Your task to perform on an android device: Go to Yahoo.com Image 0: 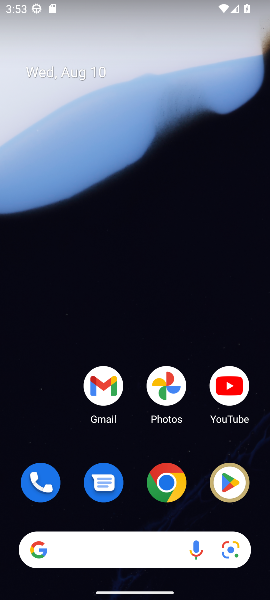
Step 0: click (131, 549)
Your task to perform on an android device: Go to Yahoo.com Image 1: 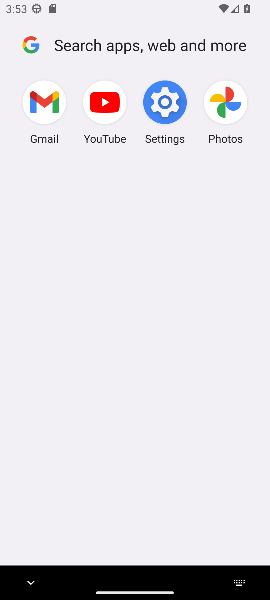
Step 1: type "yahoo.com"
Your task to perform on an android device: Go to Yahoo.com Image 2: 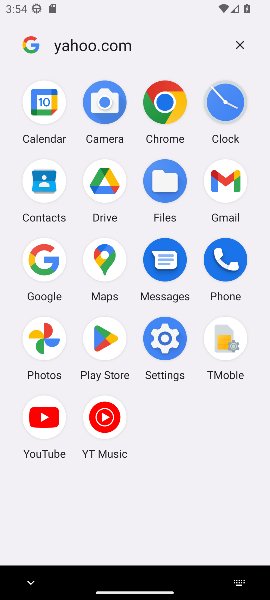
Step 2: click (239, 44)
Your task to perform on an android device: Go to Yahoo.com Image 3: 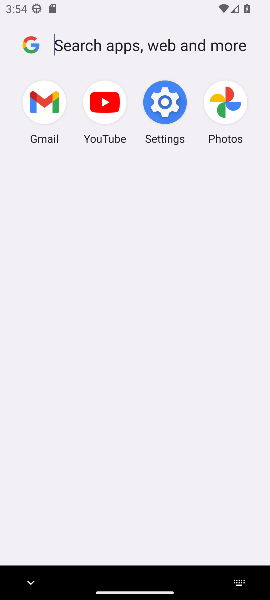
Step 3: press home button
Your task to perform on an android device: Go to Yahoo.com Image 4: 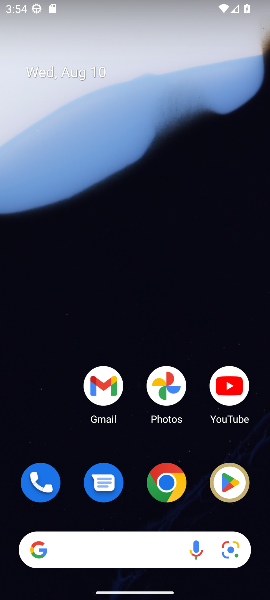
Step 4: click (128, 553)
Your task to perform on an android device: Go to Yahoo.com Image 5: 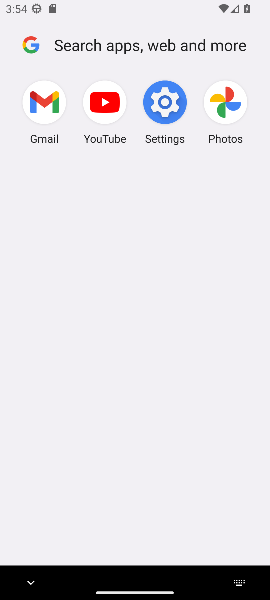
Step 5: click (30, 45)
Your task to perform on an android device: Go to Yahoo.com Image 6: 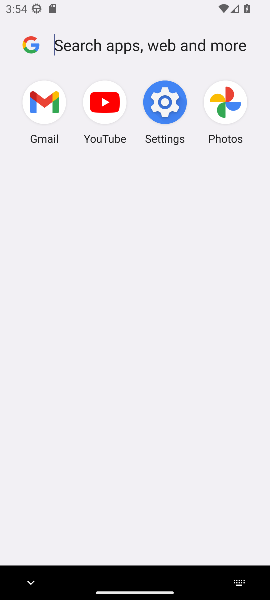
Step 6: click (32, 39)
Your task to perform on an android device: Go to Yahoo.com Image 7: 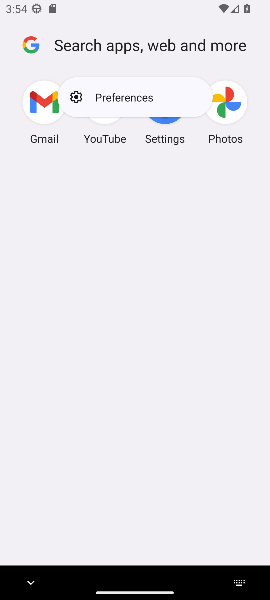
Step 7: click (90, 181)
Your task to perform on an android device: Go to Yahoo.com Image 8: 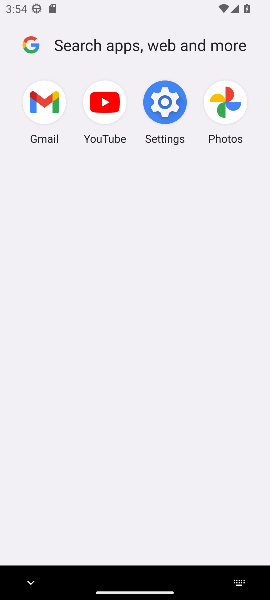
Step 8: press home button
Your task to perform on an android device: Go to Yahoo.com Image 9: 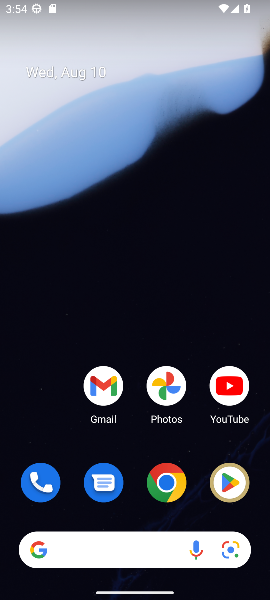
Step 9: click (166, 485)
Your task to perform on an android device: Go to Yahoo.com Image 10: 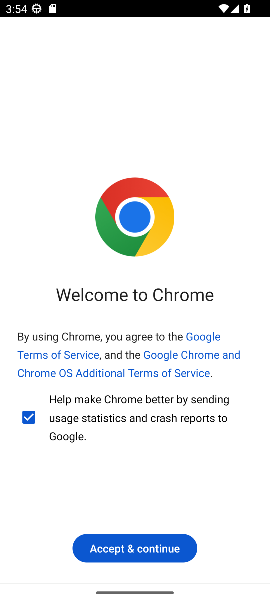
Step 10: click (134, 543)
Your task to perform on an android device: Go to Yahoo.com Image 11: 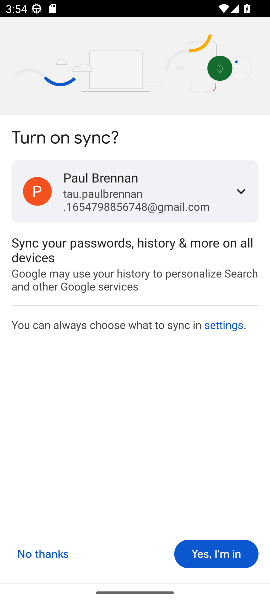
Step 11: click (194, 558)
Your task to perform on an android device: Go to Yahoo.com Image 12: 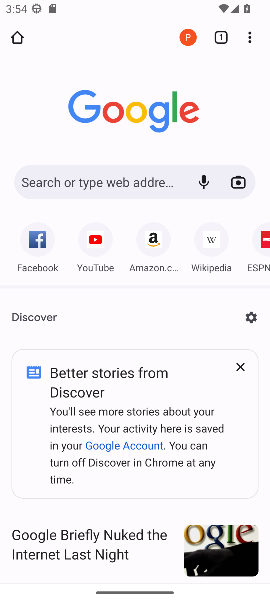
Step 12: click (242, 362)
Your task to perform on an android device: Go to Yahoo.com Image 13: 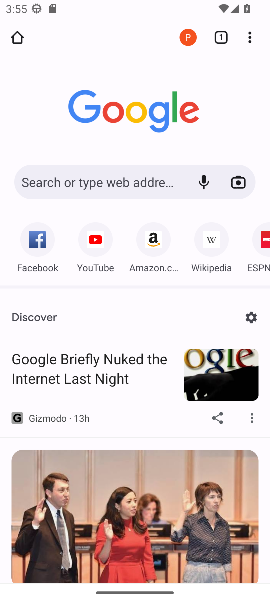
Step 13: click (139, 182)
Your task to perform on an android device: Go to Yahoo.com Image 14: 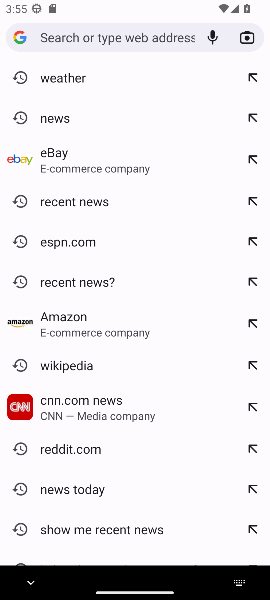
Step 14: type "yahoo.com"
Your task to perform on an android device: Go to Yahoo.com Image 15: 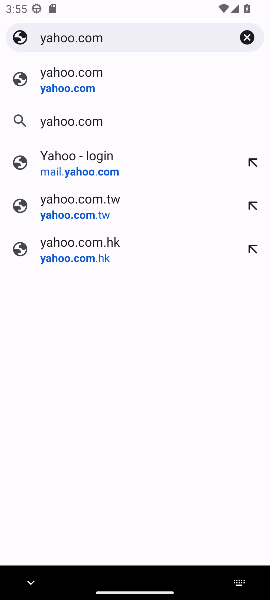
Step 15: click (85, 87)
Your task to perform on an android device: Go to Yahoo.com Image 16: 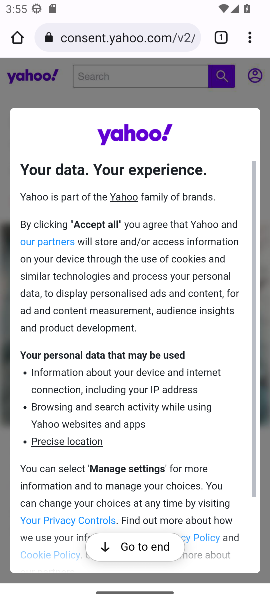
Step 16: click (152, 542)
Your task to perform on an android device: Go to Yahoo.com Image 17: 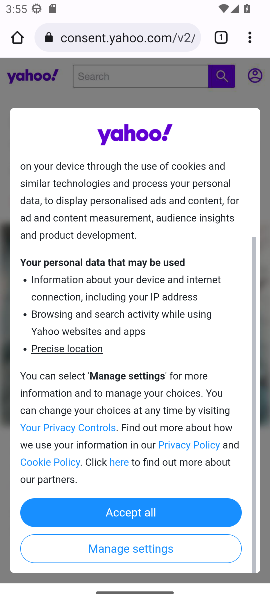
Step 17: click (167, 510)
Your task to perform on an android device: Go to Yahoo.com Image 18: 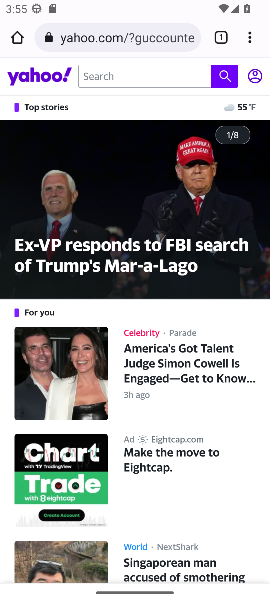
Step 18: task complete